Your task to perform on an android device: Is it going to rain this weekend? Image 0: 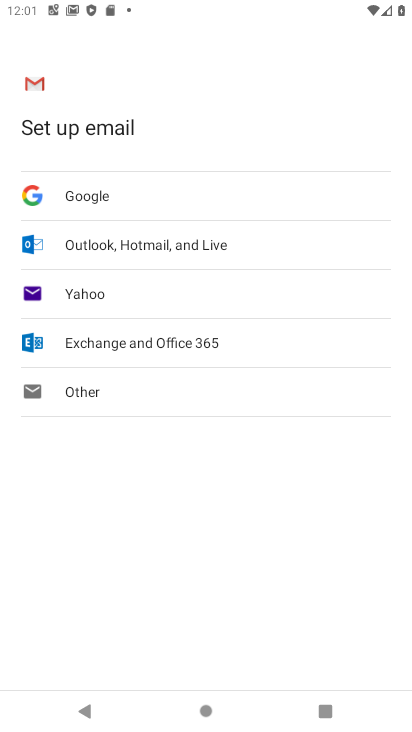
Step 0: press home button
Your task to perform on an android device: Is it going to rain this weekend? Image 1: 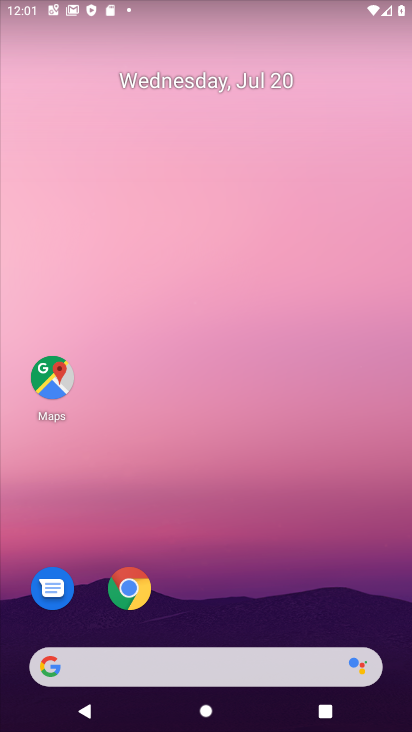
Step 1: drag from (394, 691) to (300, 14)
Your task to perform on an android device: Is it going to rain this weekend? Image 2: 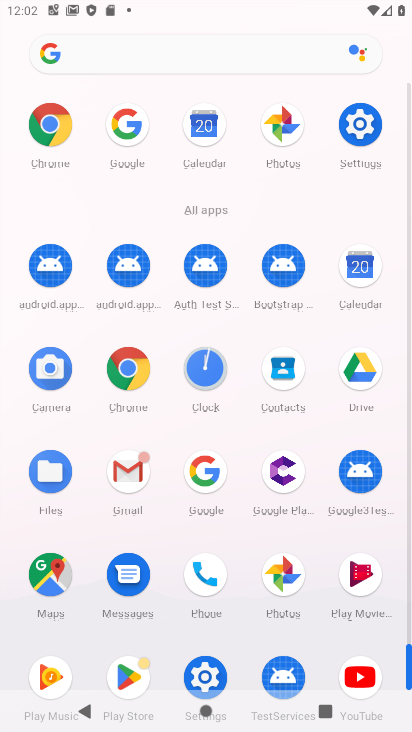
Step 2: click (205, 465)
Your task to perform on an android device: Is it going to rain this weekend? Image 3: 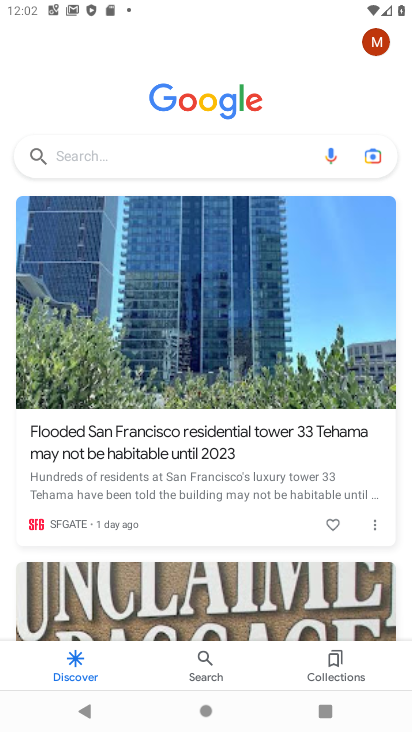
Step 3: task complete